Your task to perform on an android device: toggle improve location accuracy Image 0: 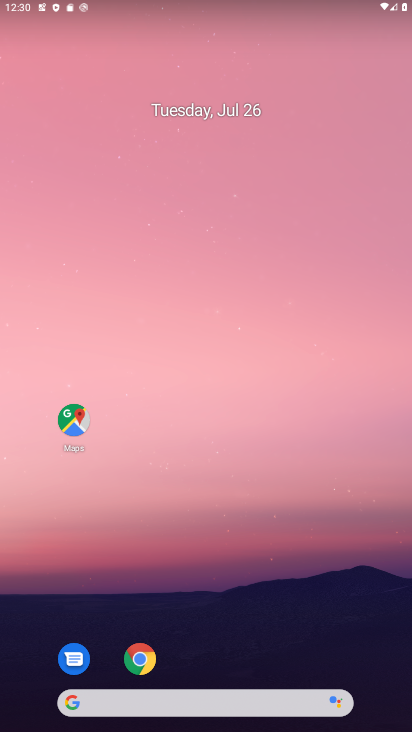
Step 0: drag from (196, 634) to (200, 166)
Your task to perform on an android device: toggle improve location accuracy Image 1: 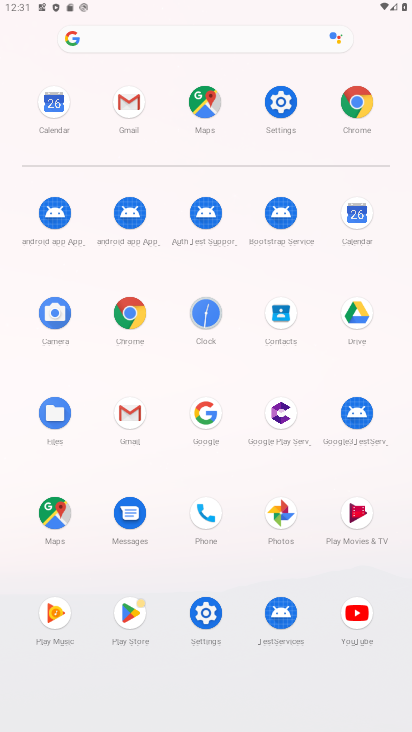
Step 1: click (216, 608)
Your task to perform on an android device: toggle improve location accuracy Image 2: 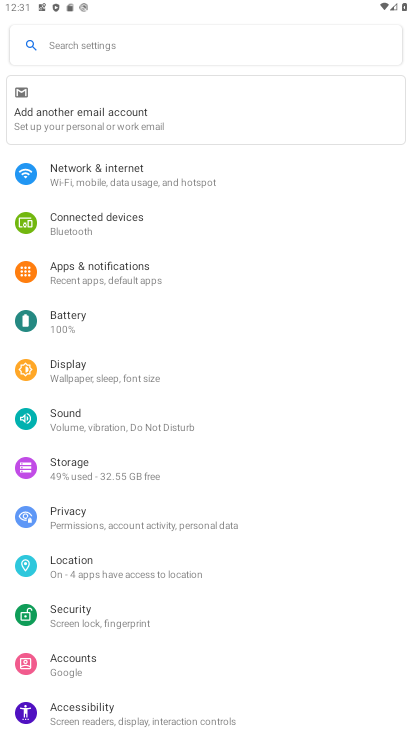
Step 2: click (90, 569)
Your task to perform on an android device: toggle improve location accuracy Image 3: 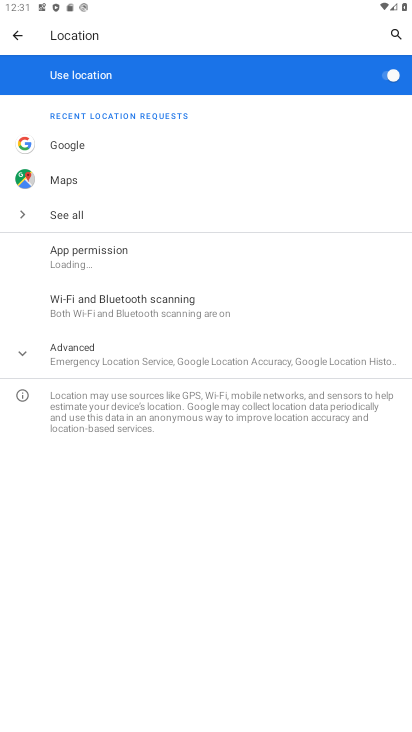
Step 3: click (110, 350)
Your task to perform on an android device: toggle improve location accuracy Image 4: 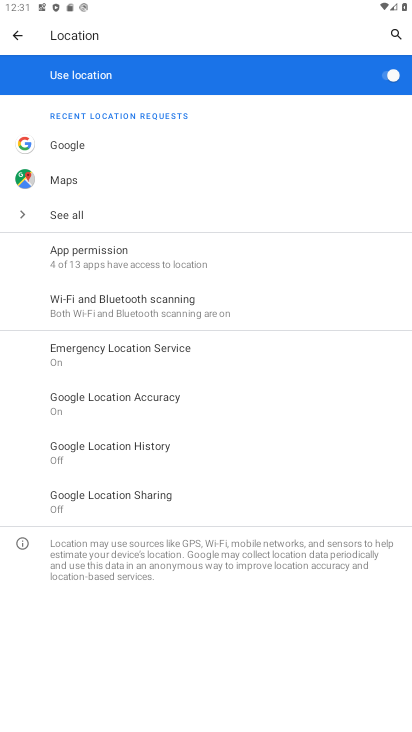
Step 4: click (173, 394)
Your task to perform on an android device: toggle improve location accuracy Image 5: 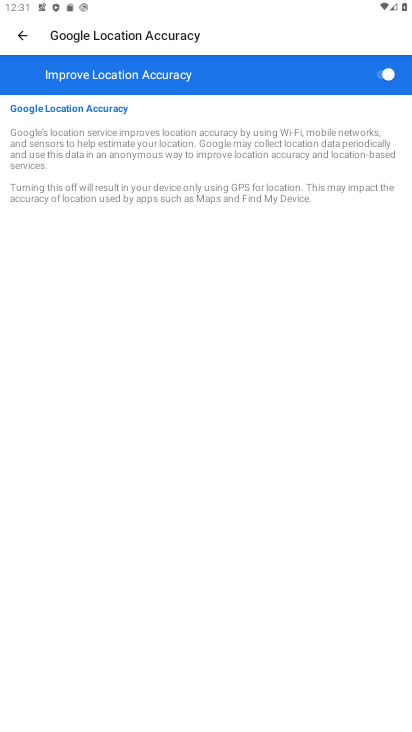
Step 5: click (382, 76)
Your task to perform on an android device: toggle improve location accuracy Image 6: 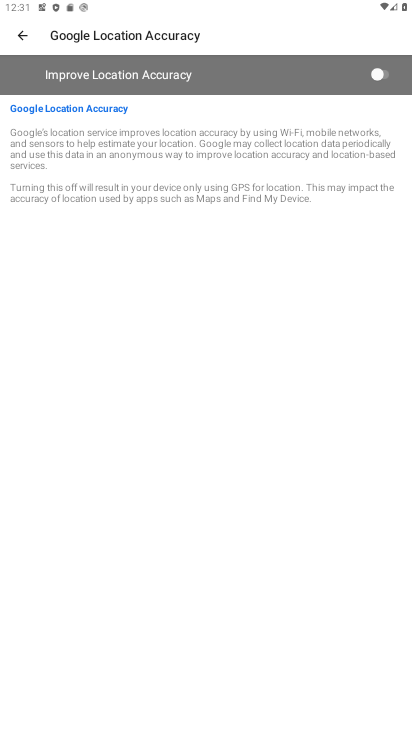
Step 6: task complete